Your task to perform on an android device: Show me productivity apps on the Play Store Image 0: 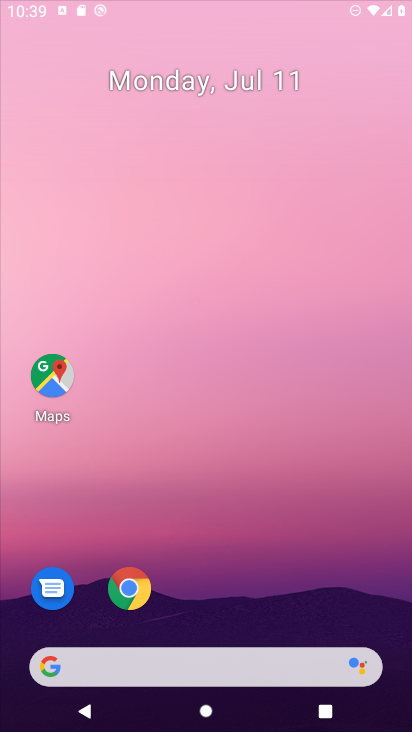
Step 0: drag from (386, 636) to (196, 0)
Your task to perform on an android device: Show me productivity apps on the Play Store Image 1: 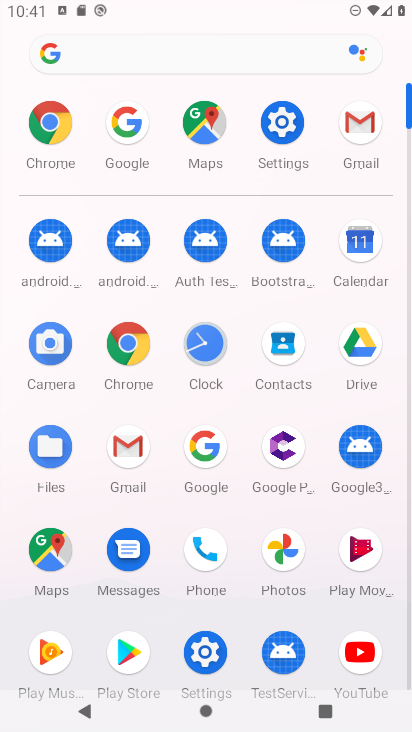
Step 1: click (119, 642)
Your task to perform on an android device: Show me productivity apps on the Play Store Image 2: 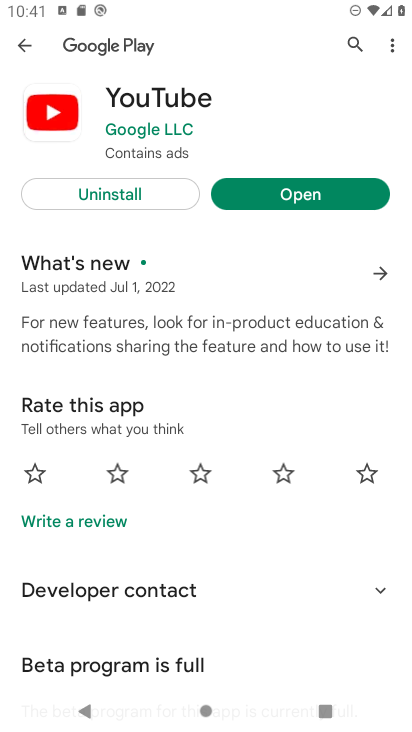
Step 2: press home button
Your task to perform on an android device: Show me productivity apps on the Play Store Image 3: 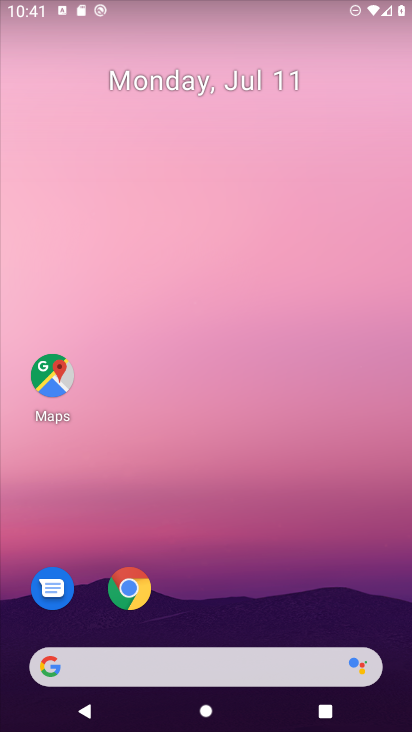
Step 3: drag from (383, 617) to (238, 28)
Your task to perform on an android device: Show me productivity apps on the Play Store Image 4: 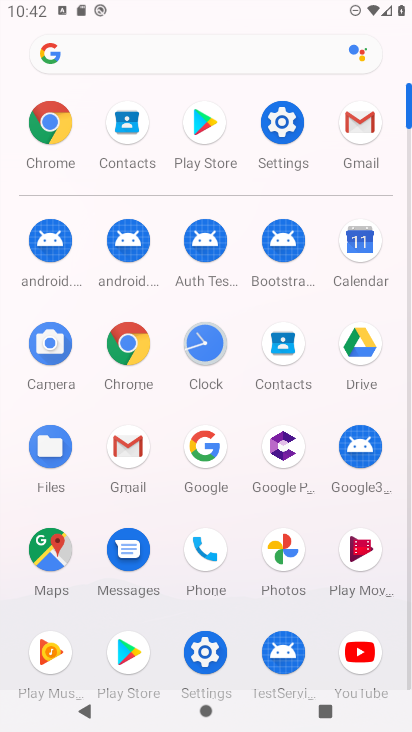
Step 4: click (143, 646)
Your task to perform on an android device: Show me productivity apps on the Play Store Image 5: 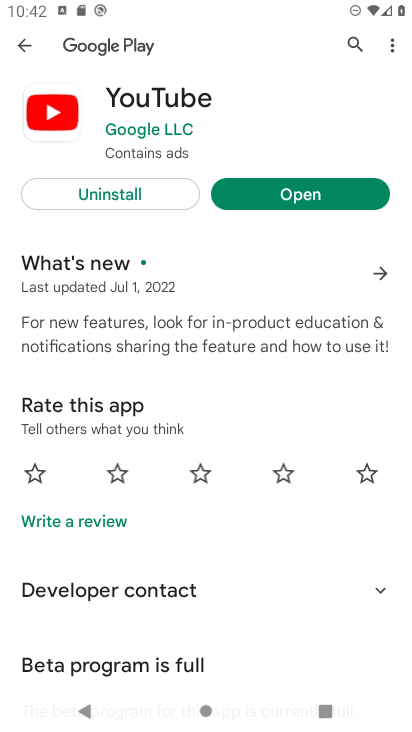
Step 5: press back button
Your task to perform on an android device: Show me productivity apps on the Play Store Image 6: 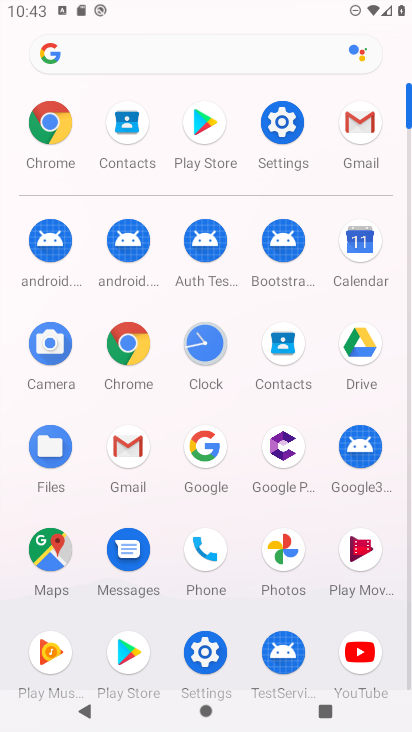
Step 6: click (139, 654)
Your task to perform on an android device: Show me productivity apps on the Play Store Image 7: 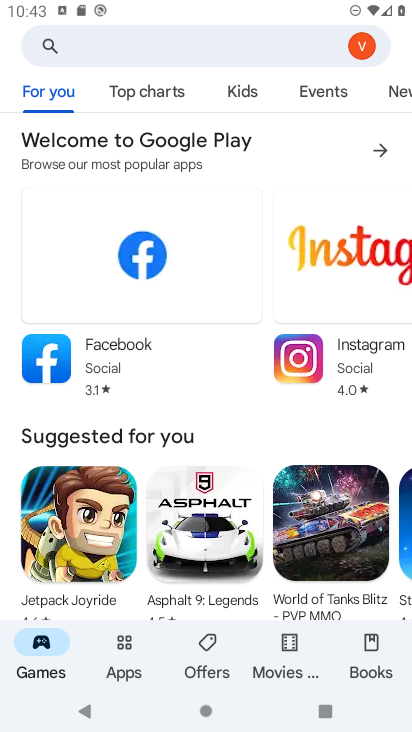
Step 7: task complete